Your task to perform on an android device: read, delete, or share a saved page in the chrome app Image 0: 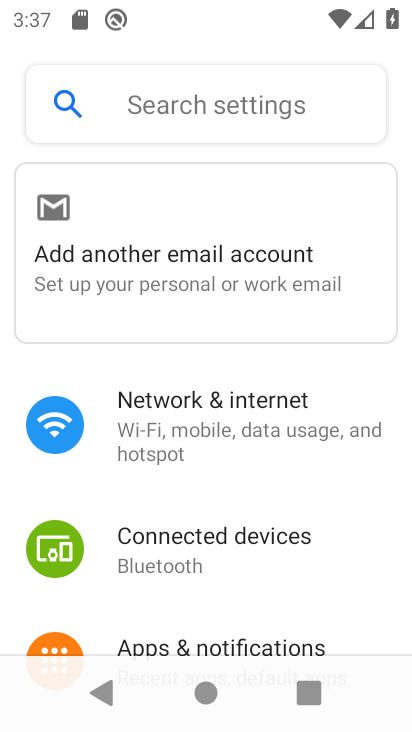
Step 0: press home button
Your task to perform on an android device: read, delete, or share a saved page in the chrome app Image 1: 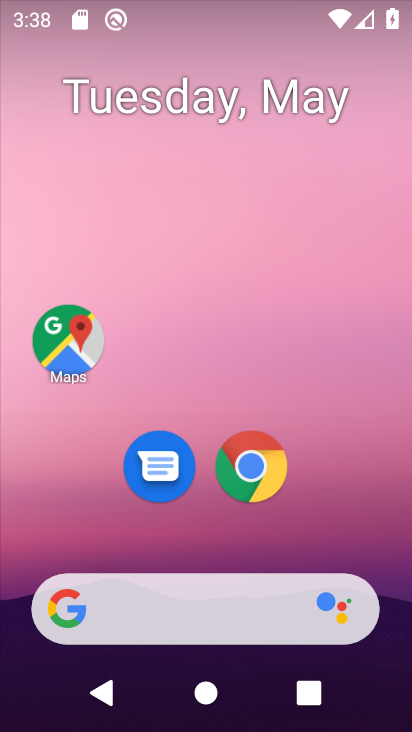
Step 1: click (267, 477)
Your task to perform on an android device: read, delete, or share a saved page in the chrome app Image 2: 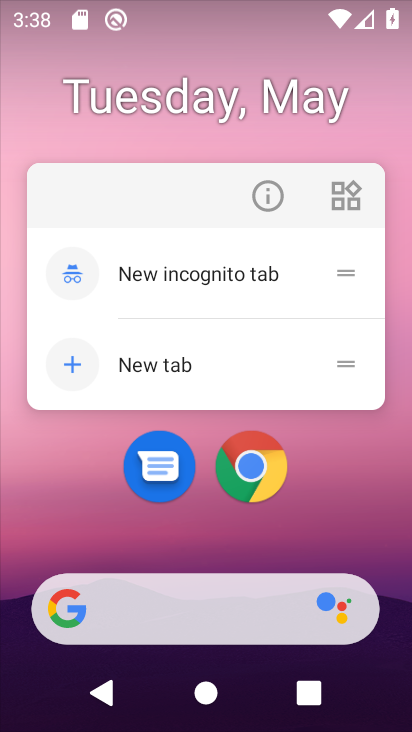
Step 2: click (325, 482)
Your task to perform on an android device: read, delete, or share a saved page in the chrome app Image 3: 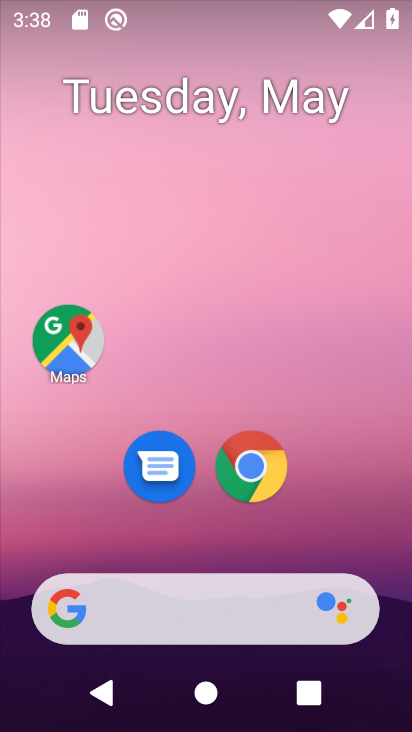
Step 3: drag from (303, 526) to (306, 60)
Your task to perform on an android device: read, delete, or share a saved page in the chrome app Image 4: 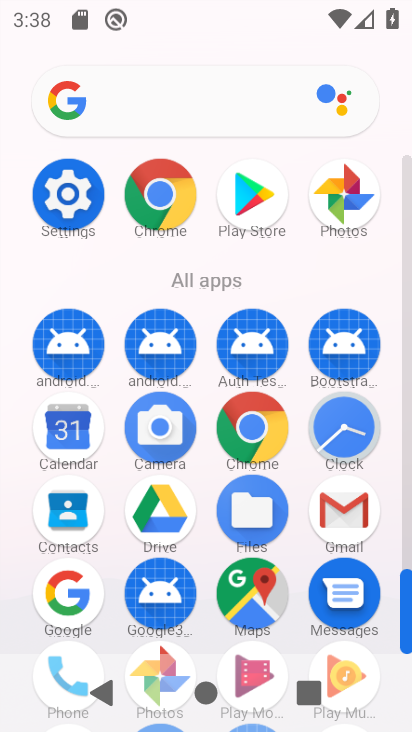
Step 4: click (233, 425)
Your task to perform on an android device: read, delete, or share a saved page in the chrome app Image 5: 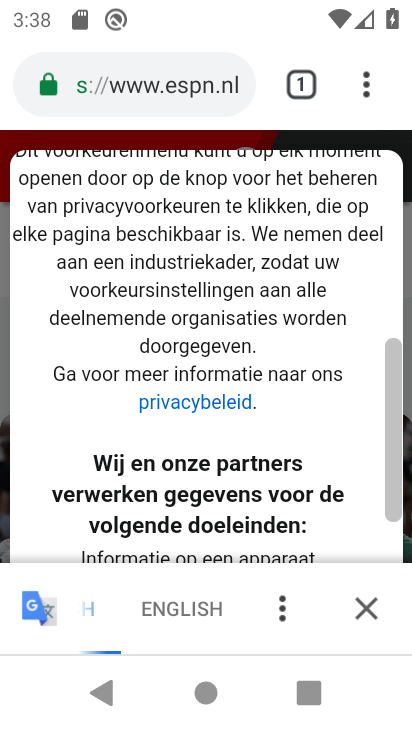
Step 5: drag from (220, 450) to (241, 145)
Your task to perform on an android device: read, delete, or share a saved page in the chrome app Image 6: 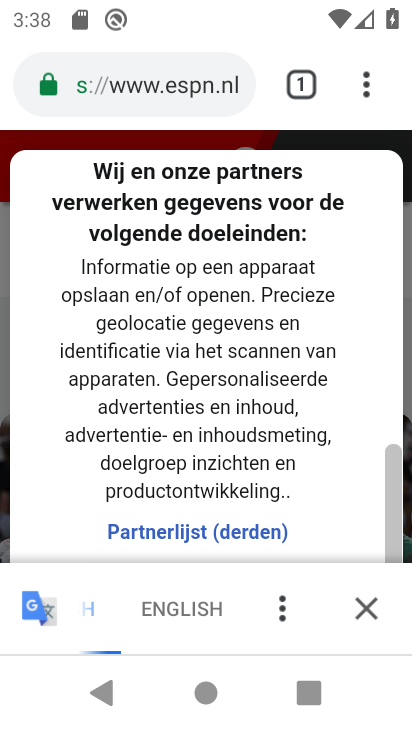
Step 6: drag from (366, 72) to (133, 73)
Your task to perform on an android device: read, delete, or share a saved page in the chrome app Image 7: 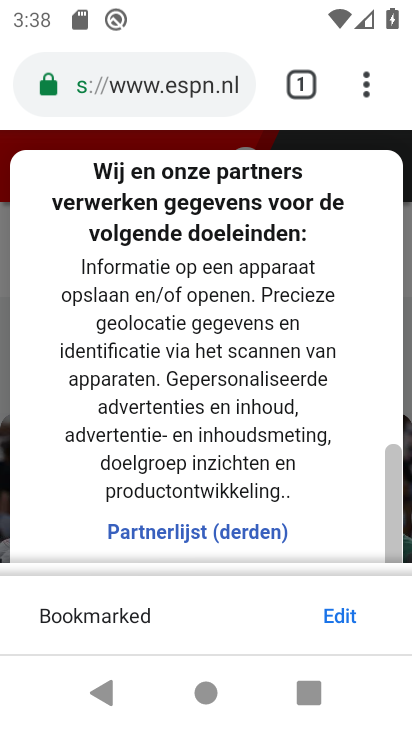
Step 7: drag from (362, 71) to (116, 77)
Your task to perform on an android device: read, delete, or share a saved page in the chrome app Image 8: 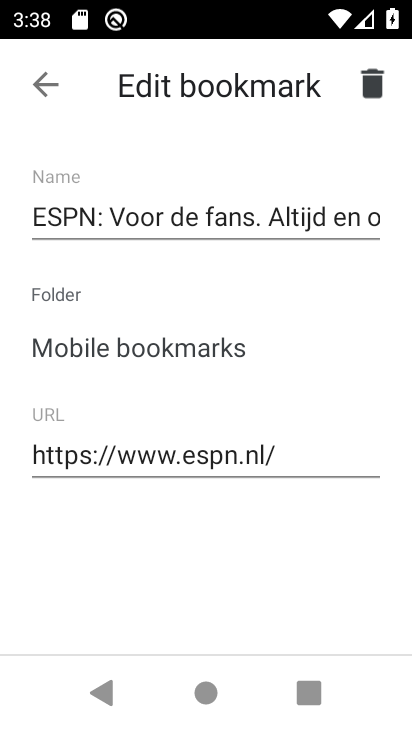
Step 8: click (367, 81)
Your task to perform on an android device: read, delete, or share a saved page in the chrome app Image 9: 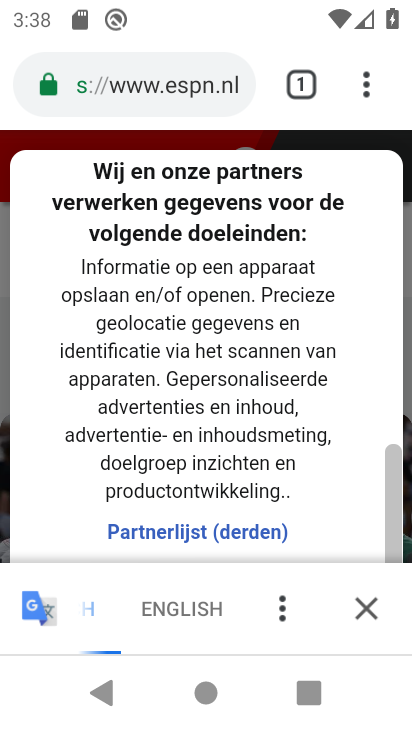
Step 9: task complete